Your task to perform on an android device: Go to internet settings Image 0: 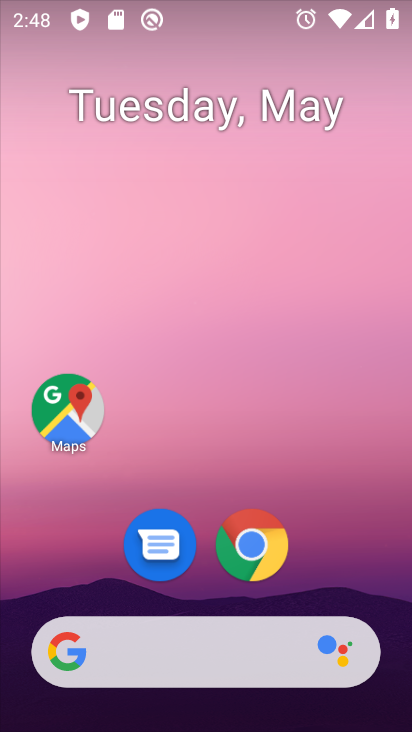
Step 0: drag from (287, 639) to (299, 130)
Your task to perform on an android device: Go to internet settings Image 1: 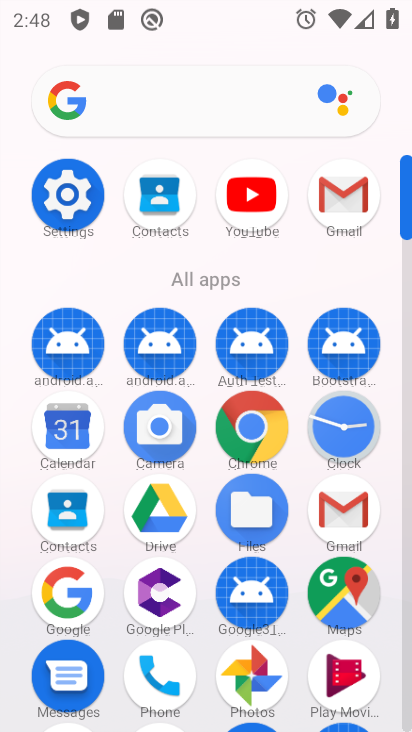
Step 1: click (84, 211)
Your task to perform on an android device: Go to internet settings Image 2: 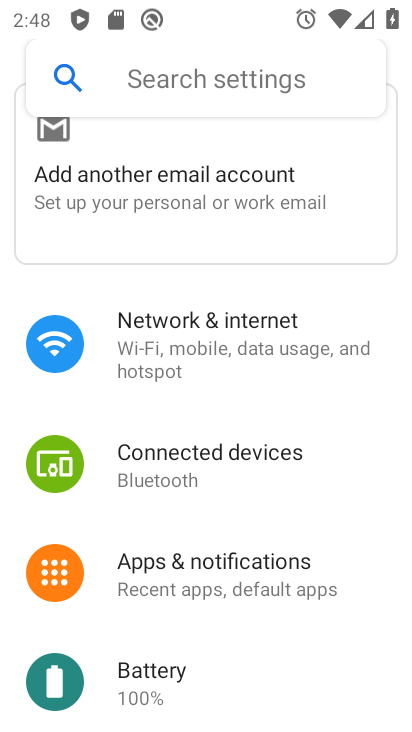
Step 2: click (213, 323)
Your task to perform on an android device: Go to internet settings Image 3: 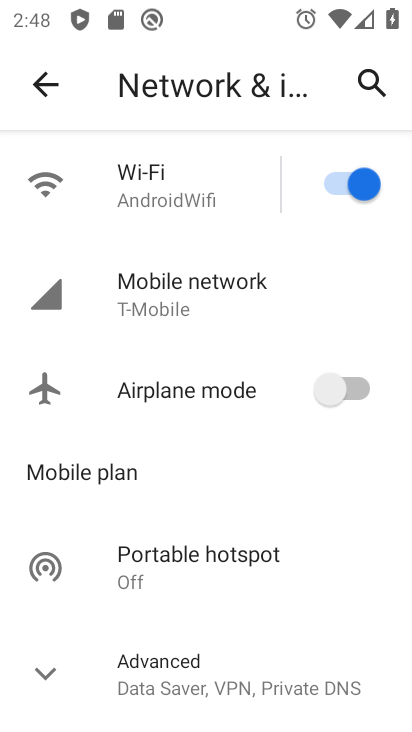
Step 3: task complete